Your task to perform on an android device: open a new tab in the chrome app Image 0: 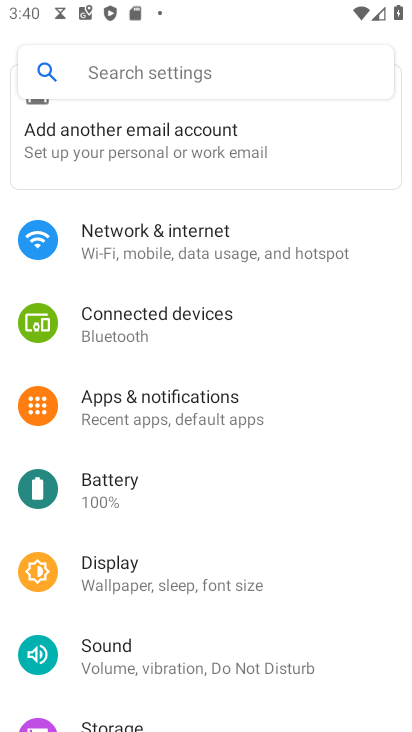
Step 0: press home button
Your task to perform on an android device: open a new tab in the chrome app Image 1: 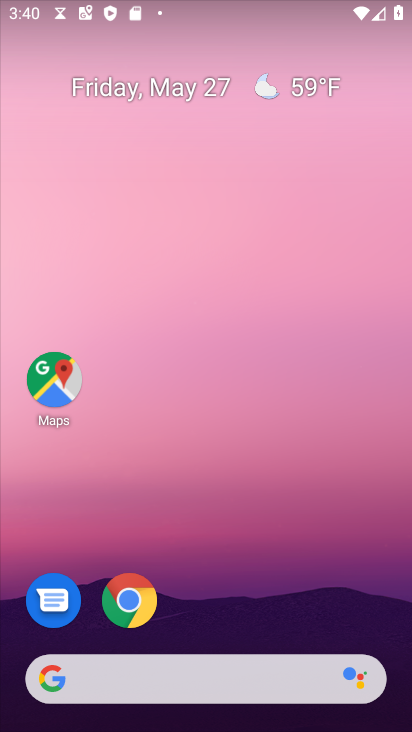
Step 1: click (129, 595)
Your task to perform on an android device: open a new tab in the chrome app Image 2: 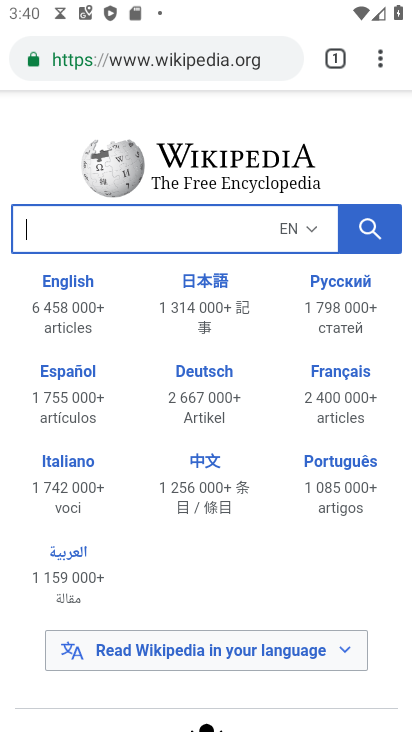
Step 2: click (380, 59)
Your task to perform on an android device: open a new tab in the chrome app Image 3: 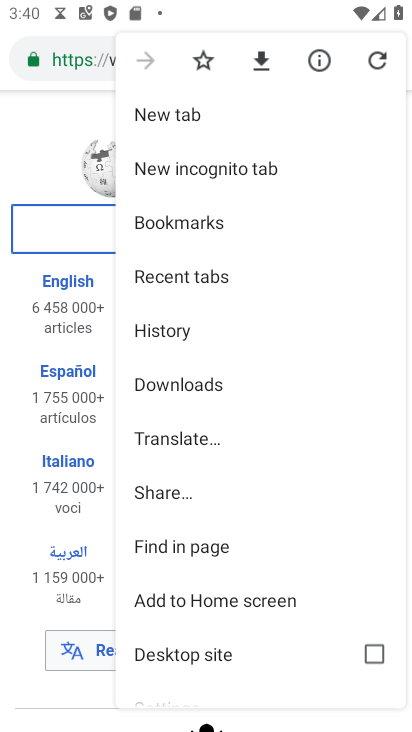
Step 3: click (190, 112)
Your task to perform on an android device: open a new tab in the chrome app Image 4: 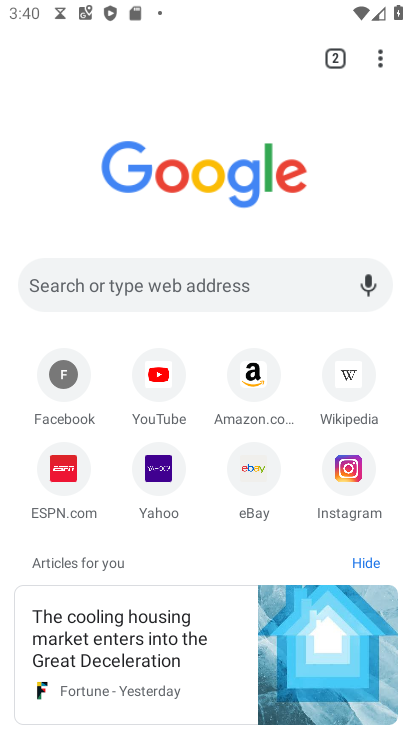
Step 4: task complete